Your task to perform on an android device: toggle notifications settings in the gmail app Image 0: 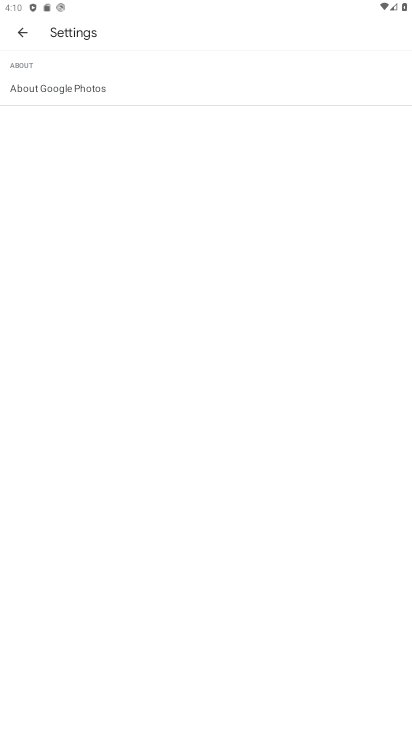
Step 0: press home button
Your task to perform on an android device: toggle notifications settings in the gmail app Image 1: 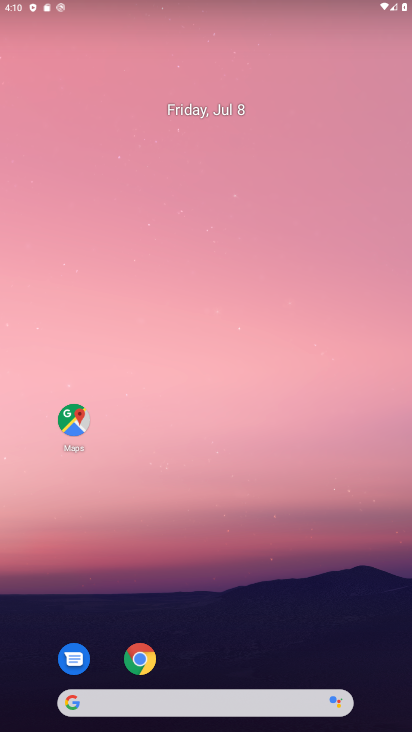
Step 1: drag from (256, 640) to (255, 63)
Your task to perform on an android device: toggle notifications settings in the gmail app Image 2: 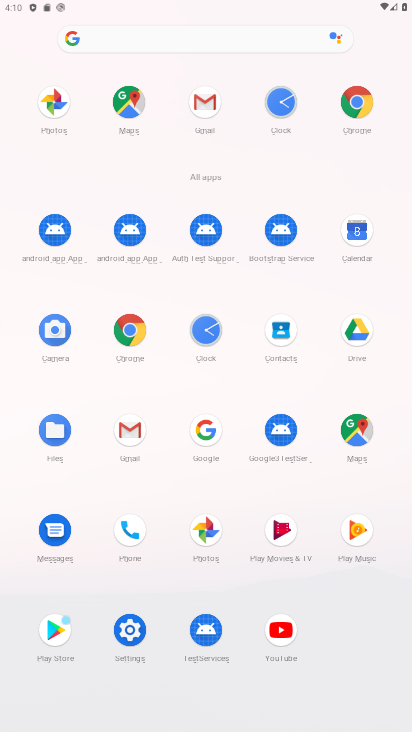
Step 2: click (135, 424)
Your task to perform on an android device: toggle notifications settings in the gmail app Image 3: 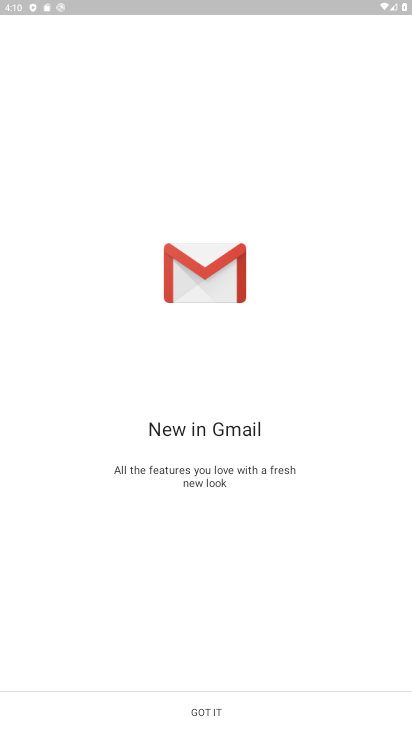
Step 3: click (205, 709)
Your task to perform on an android device: toggle notifications settings in the gmail app Image 4: 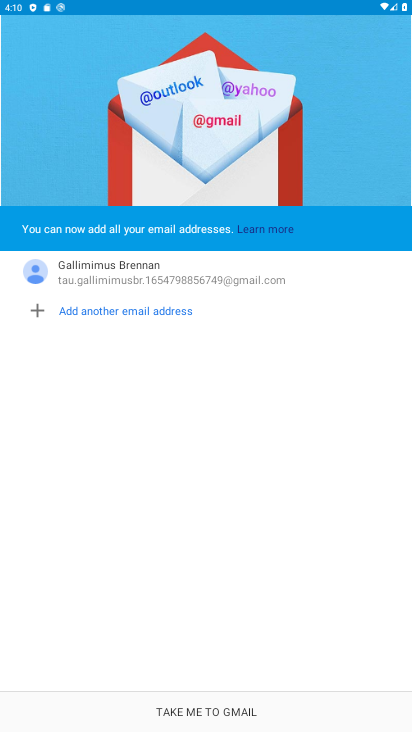
Step 4: click (221, 711)
Your task to perform on an android device: toggle notifications settings in the gmail app Image 5: 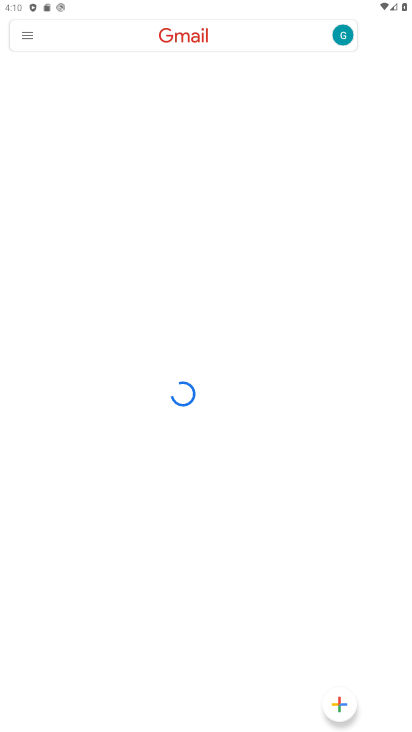
Step 5: press home button
Your task to perform on an android device: toggle notifications settings in the gmail app Image 6: 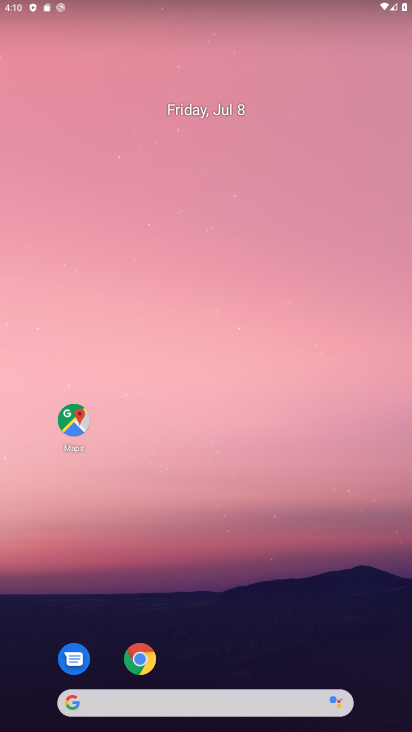
Step 6: drag from (314, 628) to (312, 97)
Your task to perform on an android device: toggle notifications settings in the gmail app Image 7: 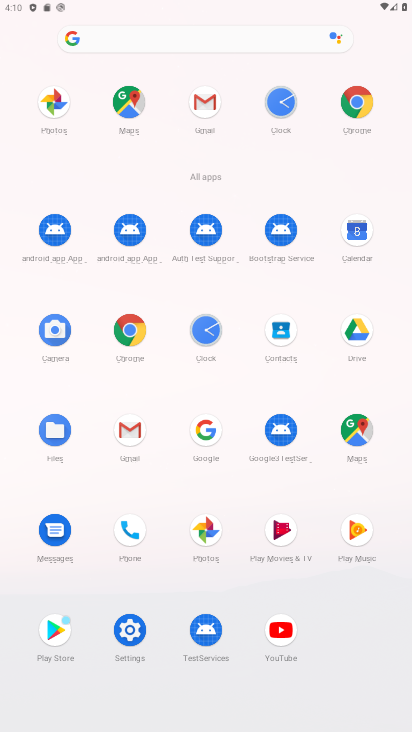
Step 7: click (137, 427)
Your task to perform on an android device: toggle notifications settings in the gmail app Image 8: 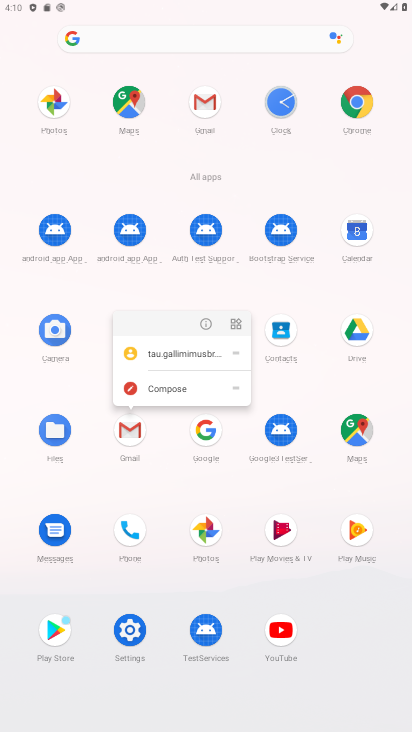
Step 8: click (208, 323)
Your task to perform on an android device: toggle notifications settings in the gmail app Image 9: 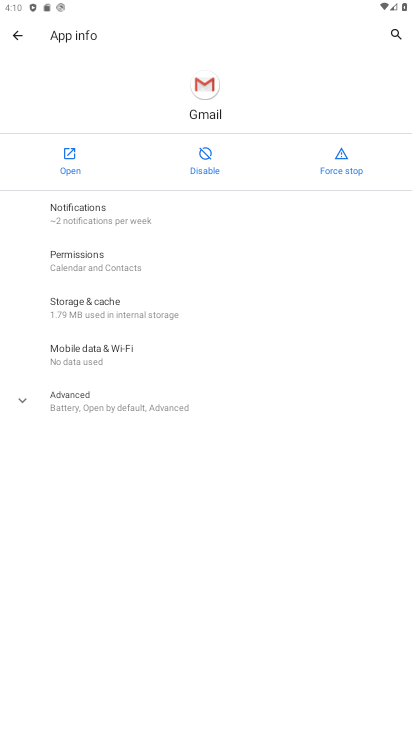
Step 9: click (66, 206)
Your task to perform on an android device: toggle notifications settings in the gmail app Image 10: 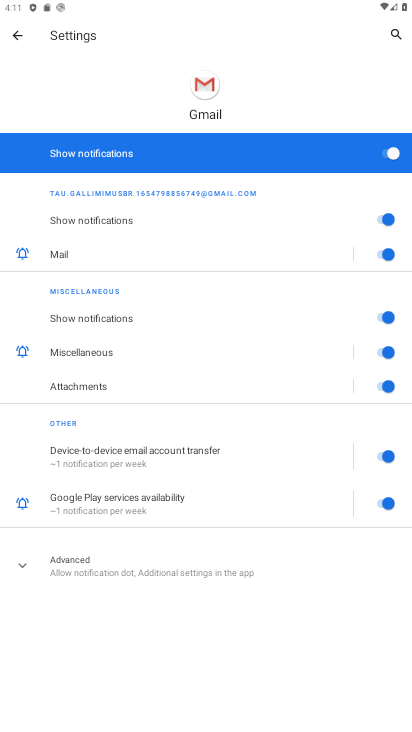
Step 10: task complete